Your task to perform on an android device: Search for "logitech g933" on bestbuy, select the first entry, add it to the cart, then select checkout. Image 0: 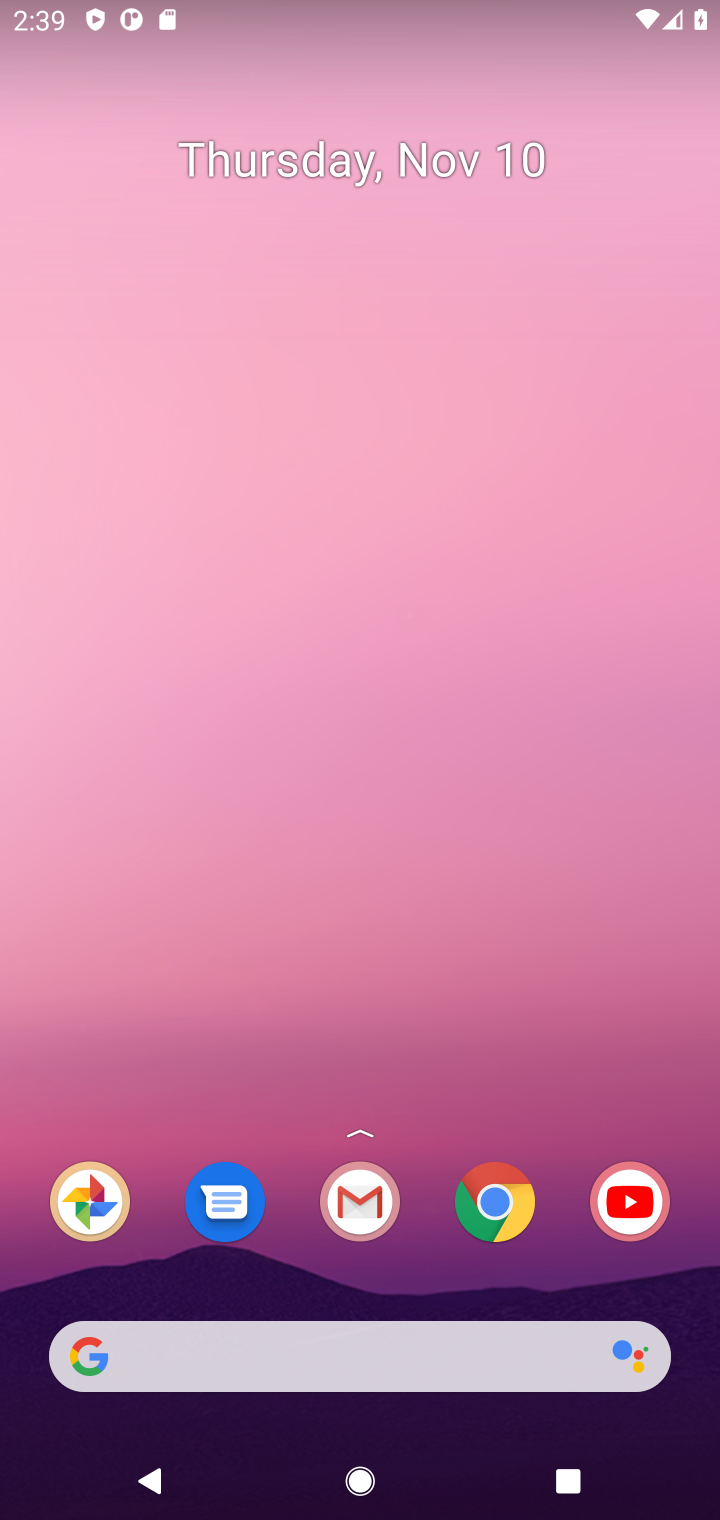
Step 0: click (491, 1222)
Your task to perform on an android device: Search for "logitech g933" on bestbuy, select the first entry, add it to the cart, then select checkout. Image 1: 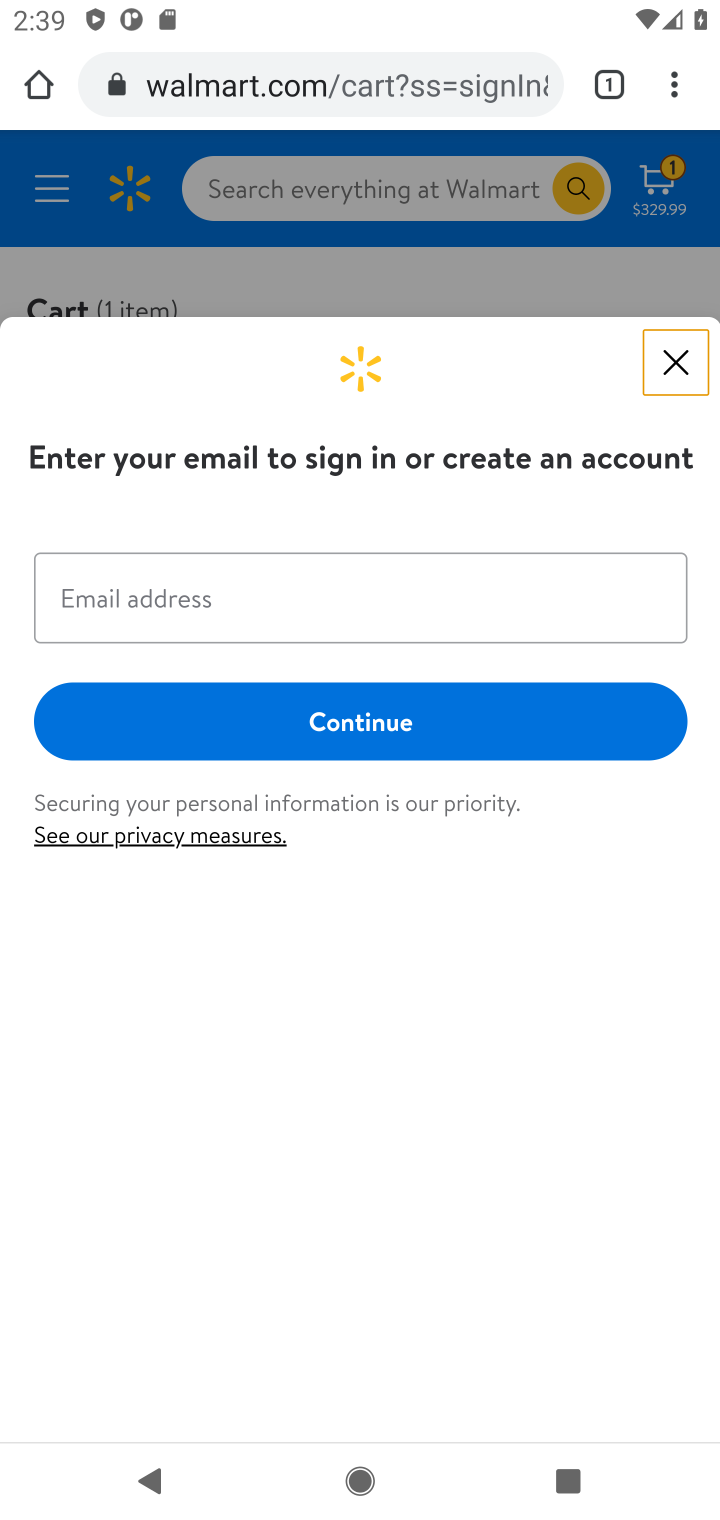
Step 1: click (435, 63)
Your task to perform on an android device: Search for "logitech g933" on bestbuy, select the first entry, add it to the cart, then select checkout. Image 2: 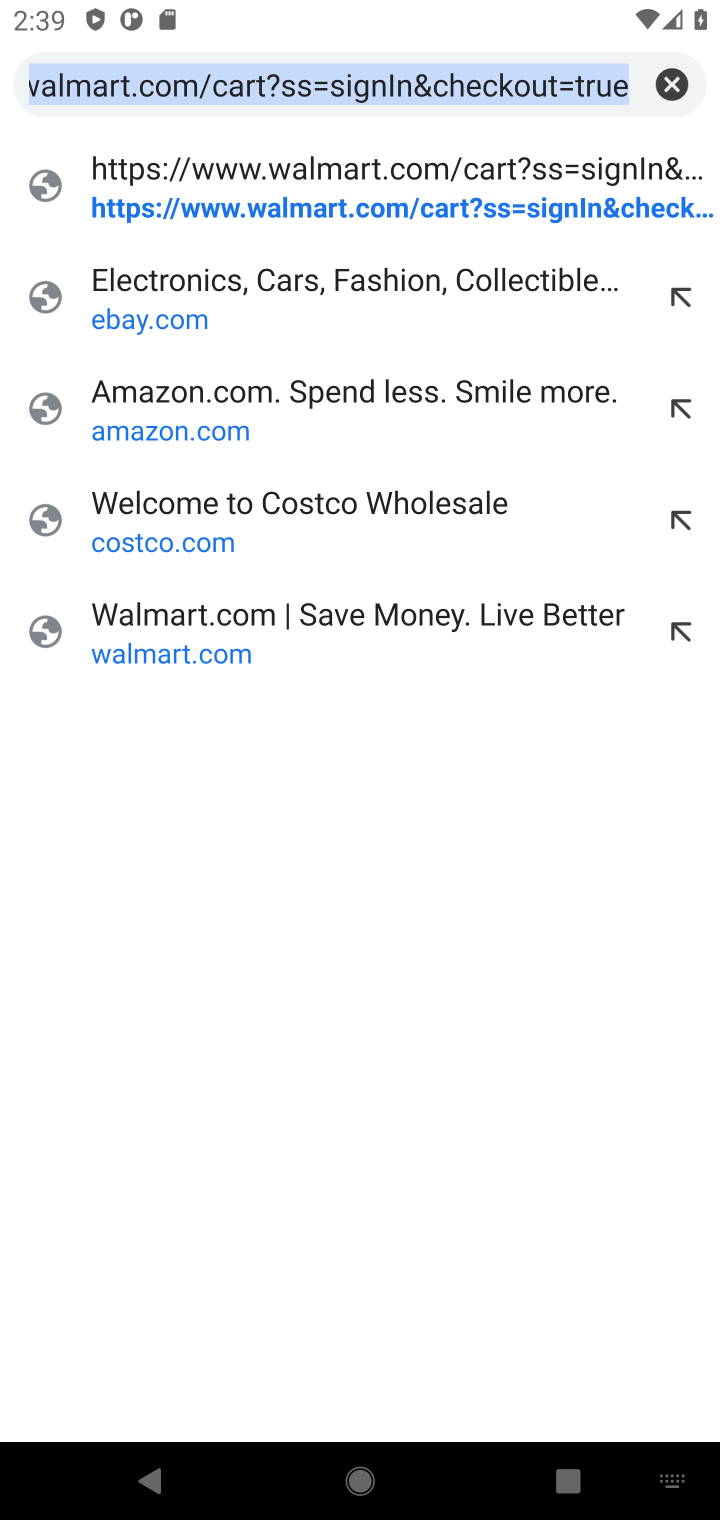
Step 2: click (667, 79)
Your task to perform on an android device: Search for "logitech g933" on bestbuy, select the first entry, add it to the cart, then select checkout. Image 3: 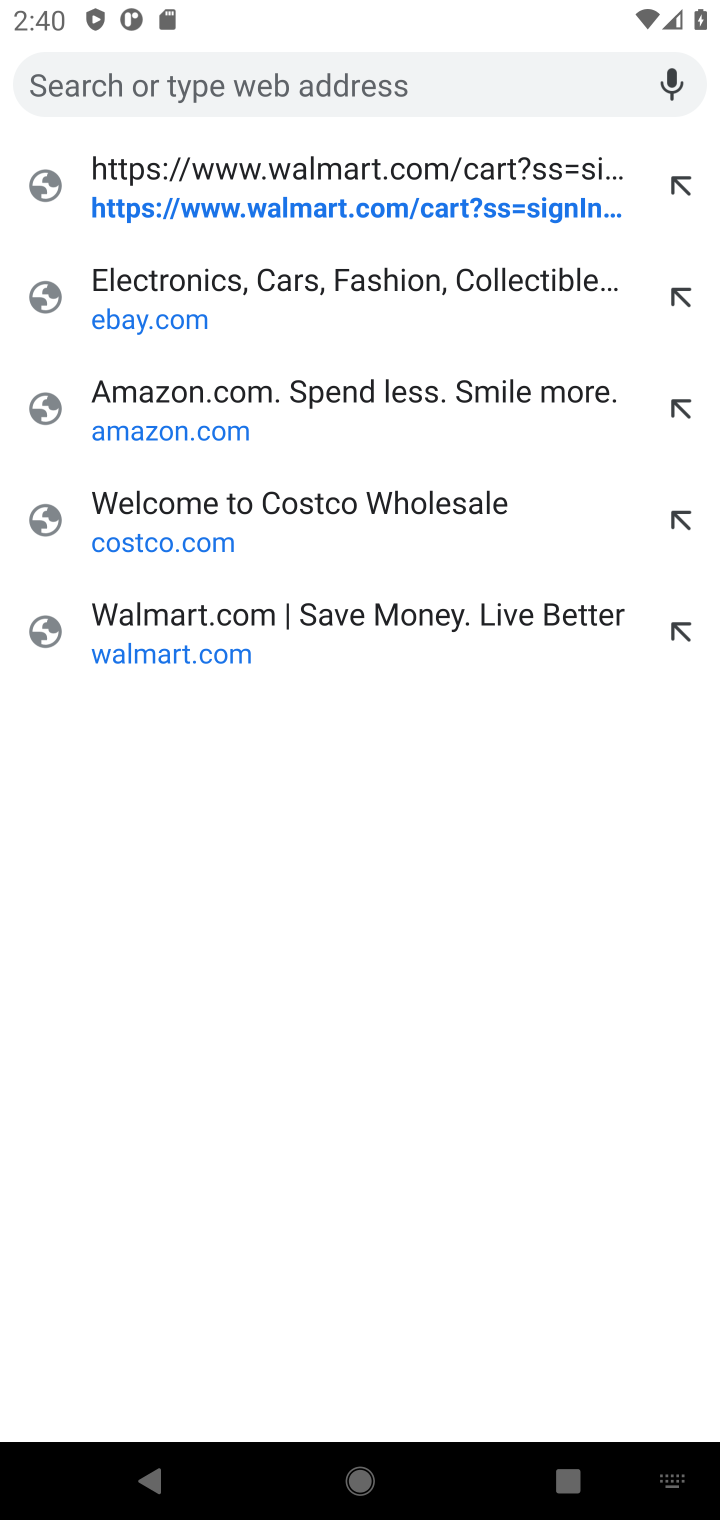
Step 3: type "bestbuy"
Your task to perform on an android device: Search for "logitech g933" on bestbuy, select the first entry, add it to the cart, then select checkout. Image 4: 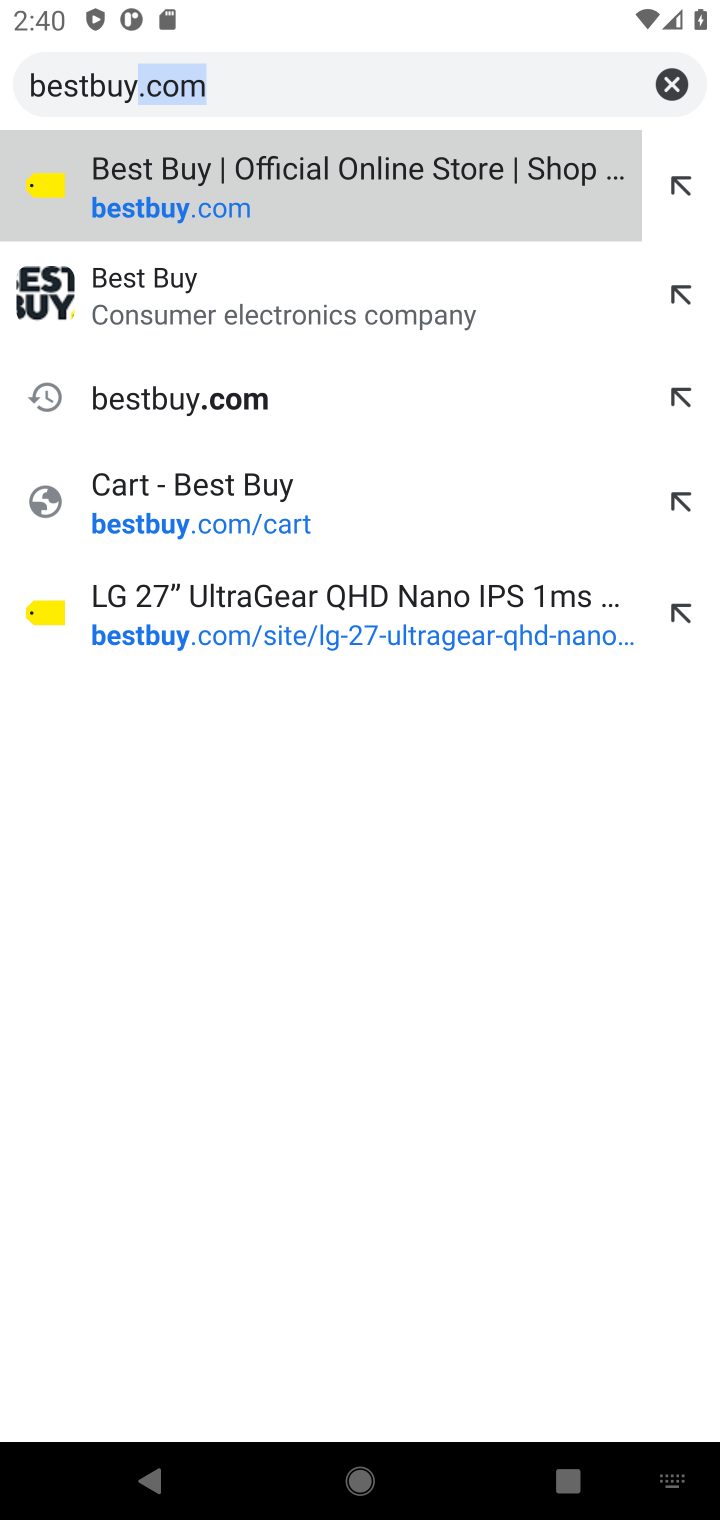
Step 4: press enter
Your task to perform on an android device: Search for "logitech g933" on bestbuy, select the first entry, add it to the cart, then select checkout. Image 5: 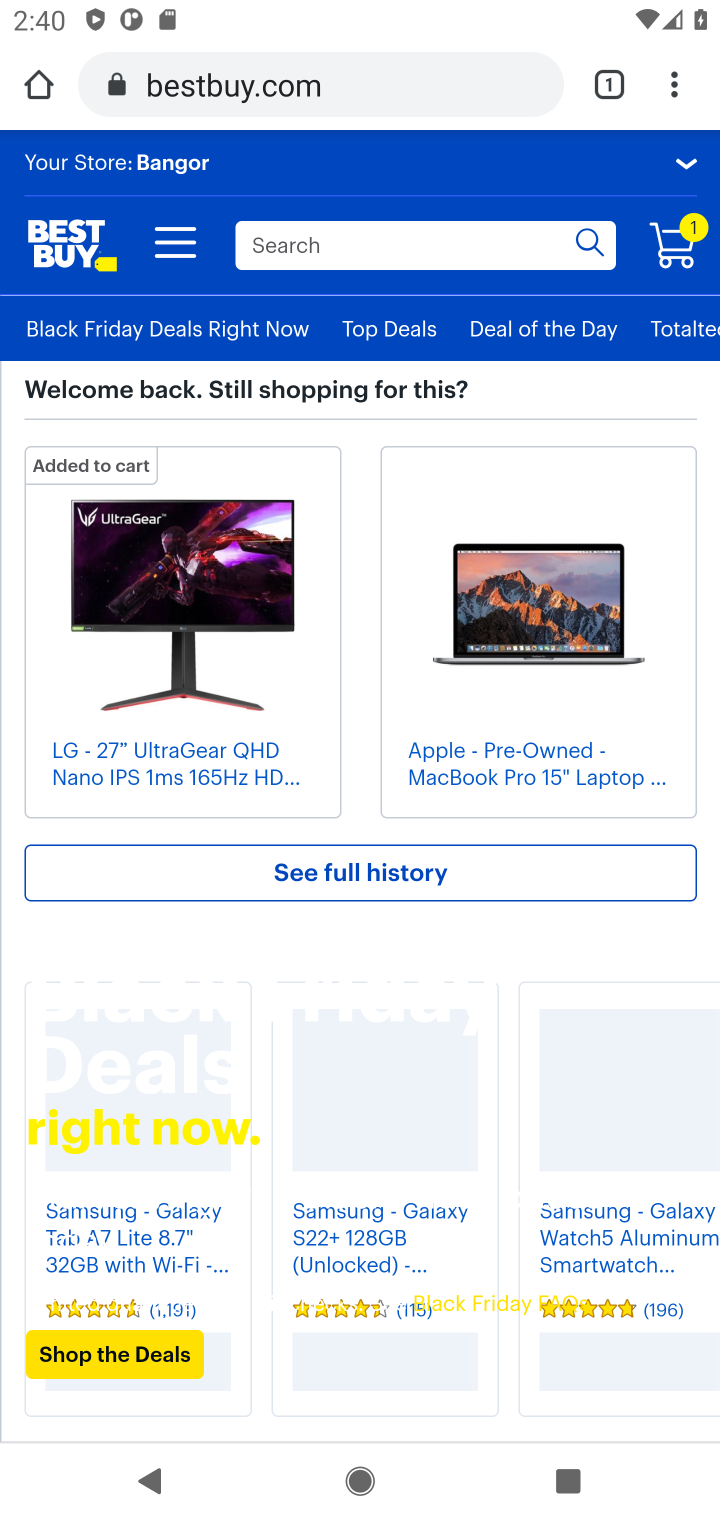
Step 5: click (495, 236)
Your task to perform on an android device: Search for "logitech g933" on bestbuy, select the first entry, add it to the cart, then select checkout. Image 6: 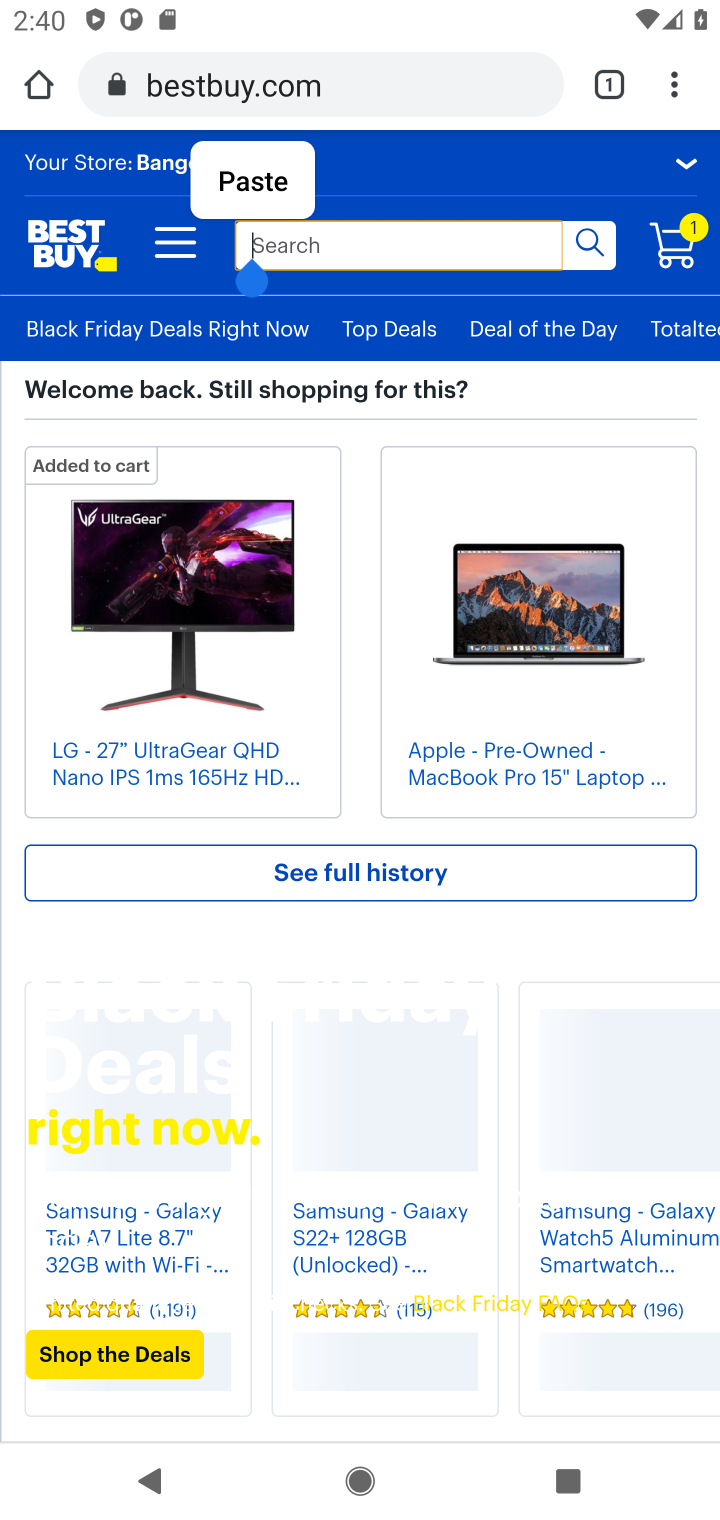
Step 6: type "logitech g933"
Your task to perform on an android device: Search for "logitech g933" on bestbuy, select the first entry, add it to the cart, then select checkout. Image 7: 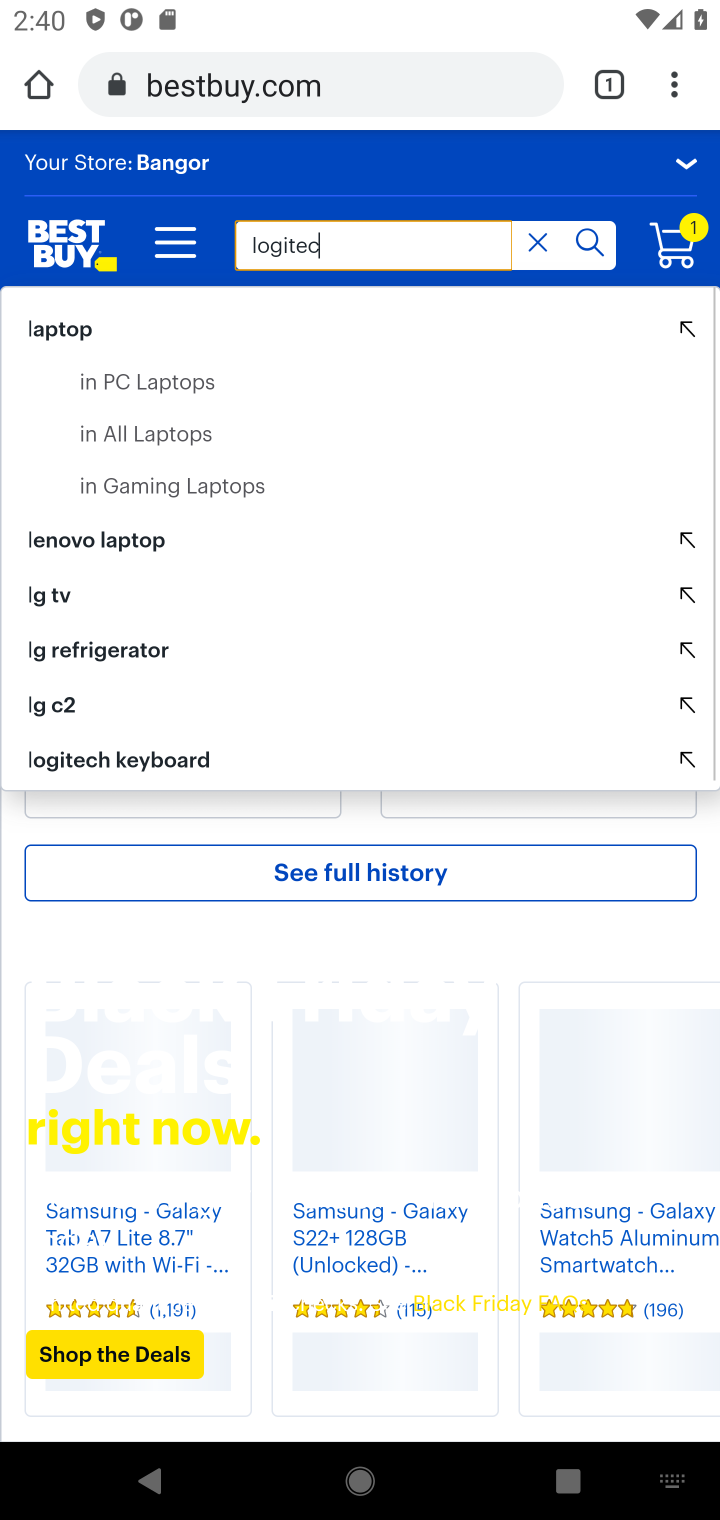
Step 7: press enter
Your task to perform on an android device: Search for "logitech g933" on bestbuy, select the first entry, add it to the cart, then select checkout. Image 8: 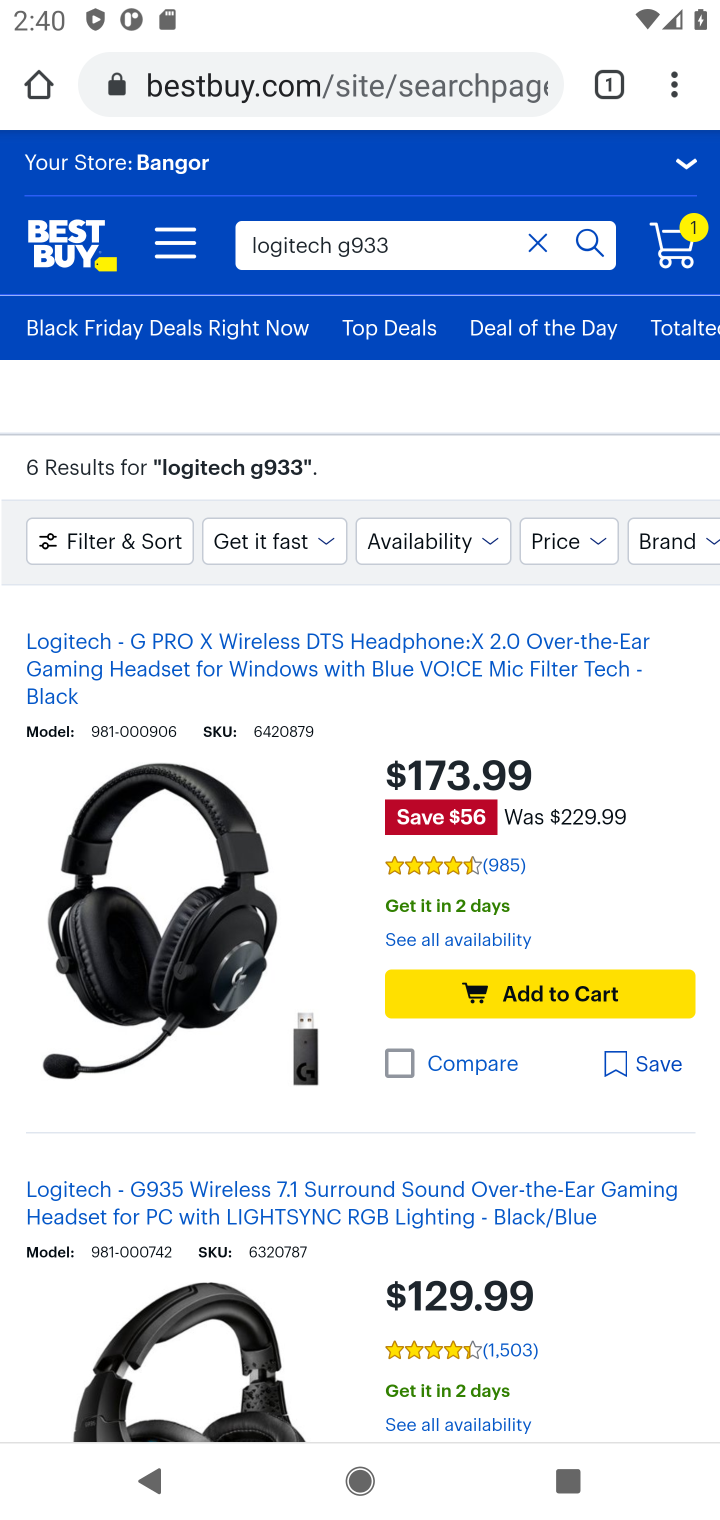
Step 8: task complete